Your task to perform on an android device: delete the emails in spam in the gmail app Image 0: 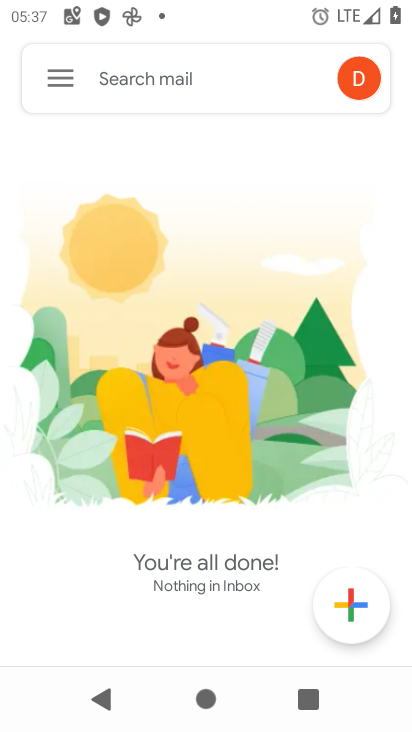
Step 0: press home button
Your task to perform on an android device: delete the emails in spam in the gmail app Image 1: 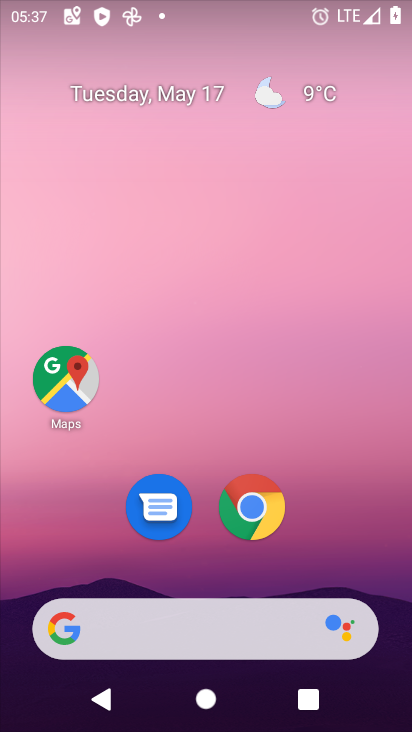
Step 1: drag from (340, 527) to (205, 33)
Your task to perform on an android device: delete the emails in spam in the gmail app Image 2: 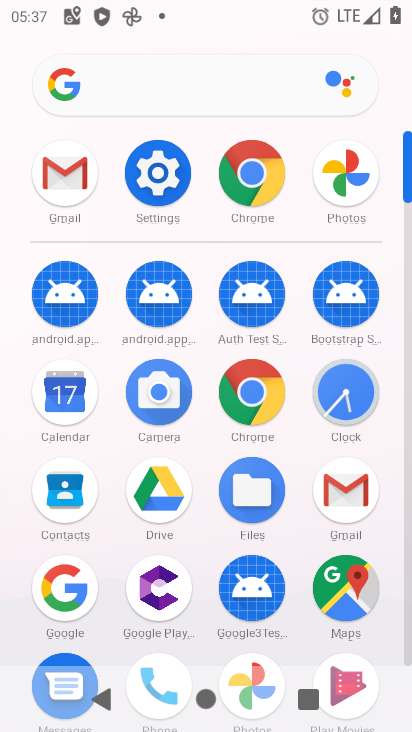
Step 2: click (345, 493)
Your task to perform on an android device: delete the emails in spam in the gmail app Image 3: 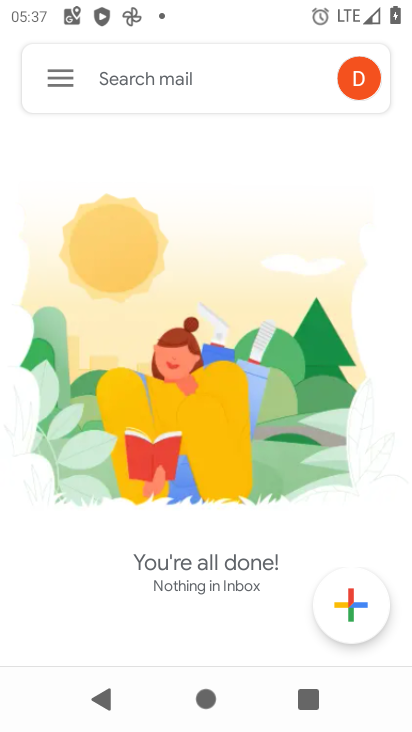
Step 3: click (60, 77)
Your task to perform on an android device: delete the emails in spam in the gmail app Image 4: 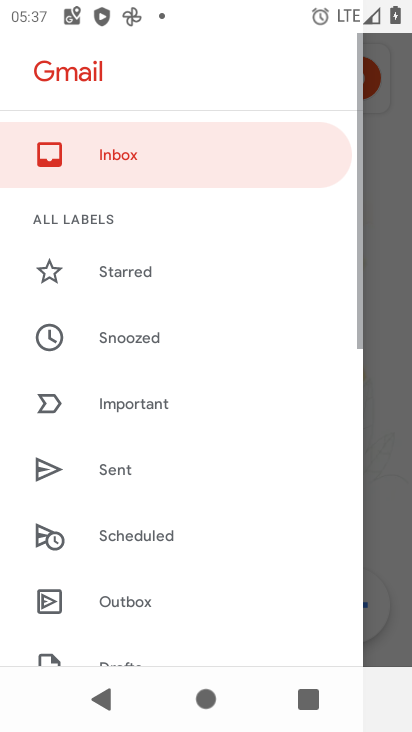
Step 4: drag from (215, 594) to (196, 178)
Your task to perform on an android device: delete the emails in spam in the gmail app Image 5: 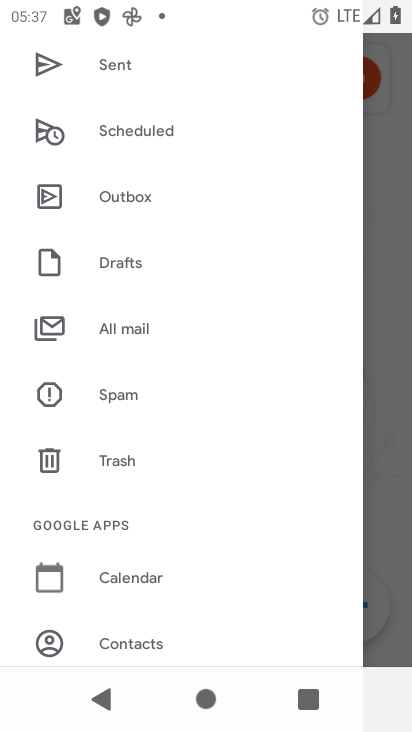
Step 5: click (166, 399)
Your task to perform on an android device: delete the emails in spam in the gmail app Image 6: 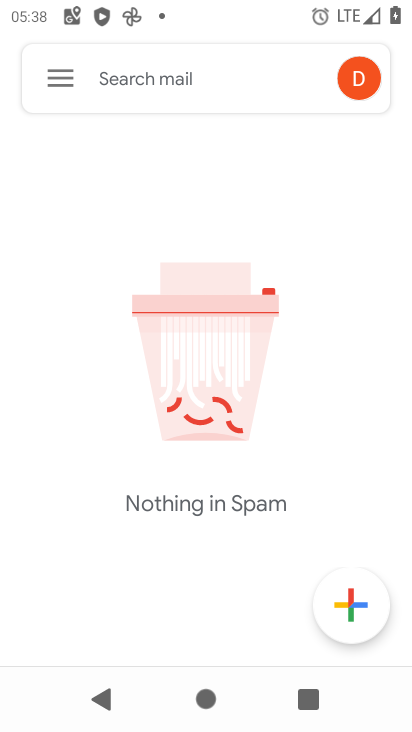
Step 6: task complete